Your task to perform on an android device: all mails in gmail Image 0: 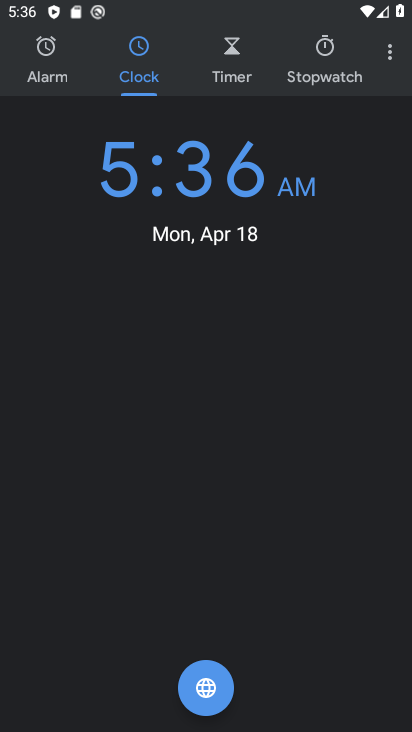
Step 0: press home button
Your task to perform on an android device: all mails in gmail Image 1: 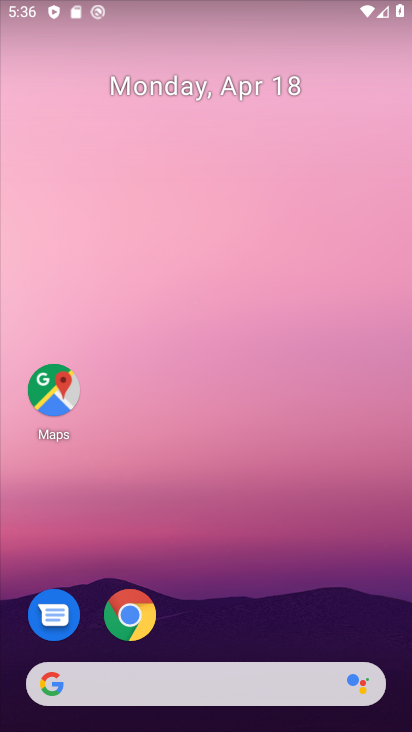
Step 1: click (241, 299)
Your task to perform on an android device: all mails in gmail Image 2: 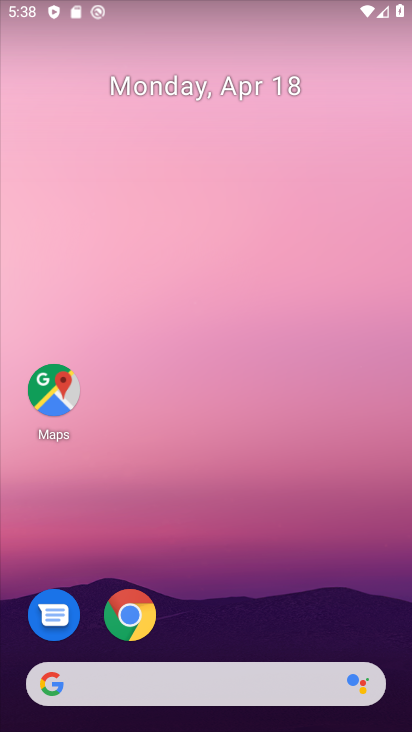
Step 2: drag from (225, 448) to (130, 23)
Your task to perform on an android device: all mails in gmail Image 3: 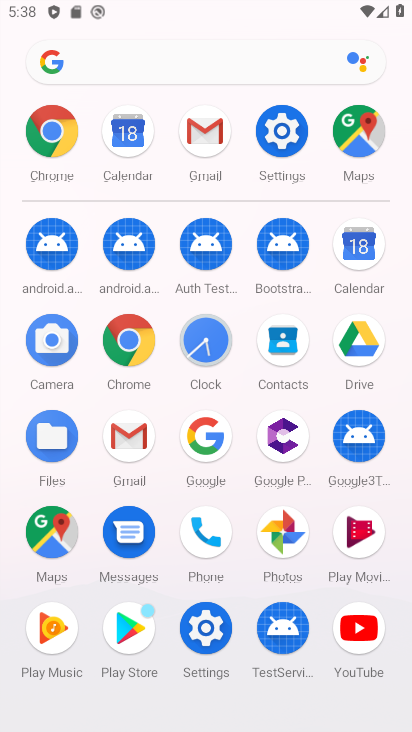
Step 3: click (192, 117)
Your task to perform on an android device: all mails in gmail Image 4: 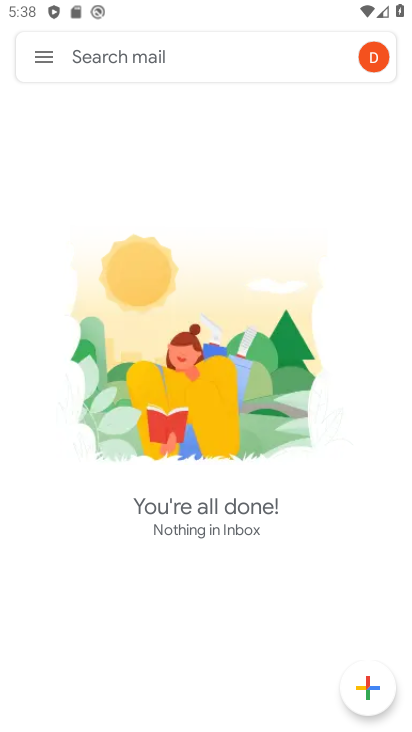
Step 4: click (51, 58)
Your task to perform on an android device: all mails in gmail Image 5: 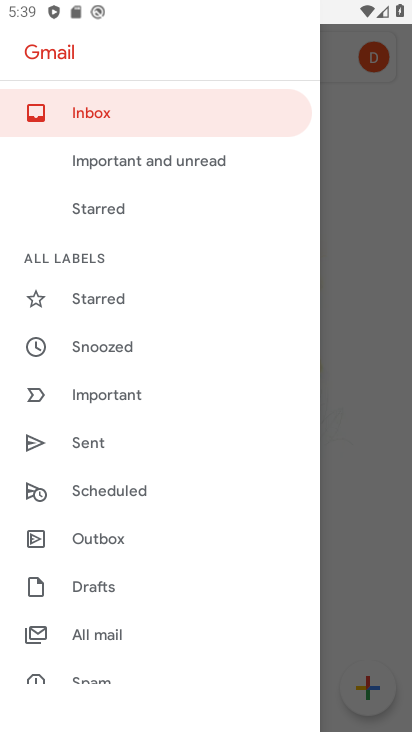
Step 5: drag from (171, 589) to (159, 439)
Your task to perform on an android device: all mails in gmail Image 6: 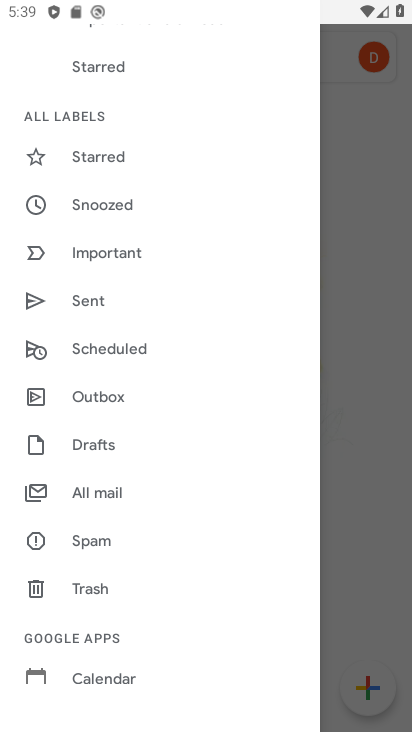
Step 6: click (112, 497)
Your task to perform on an android device: all mails in gmail Image 7: 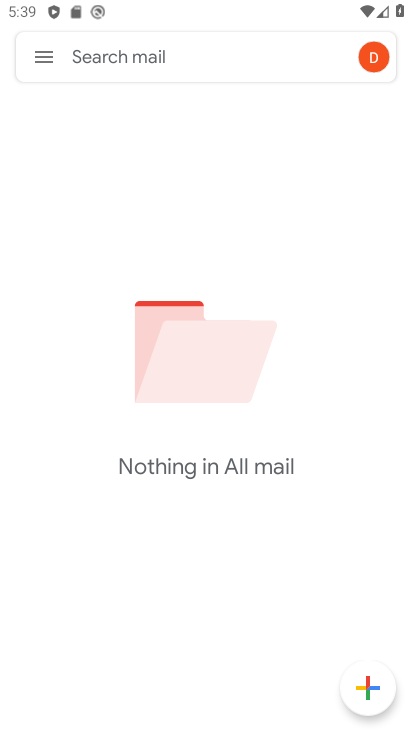
Step 7: task complete